Your task to perform on an android device: Search for "dell xps" on bestbuy, select the first entry, add it to the cart, then select checkout. Image 0: 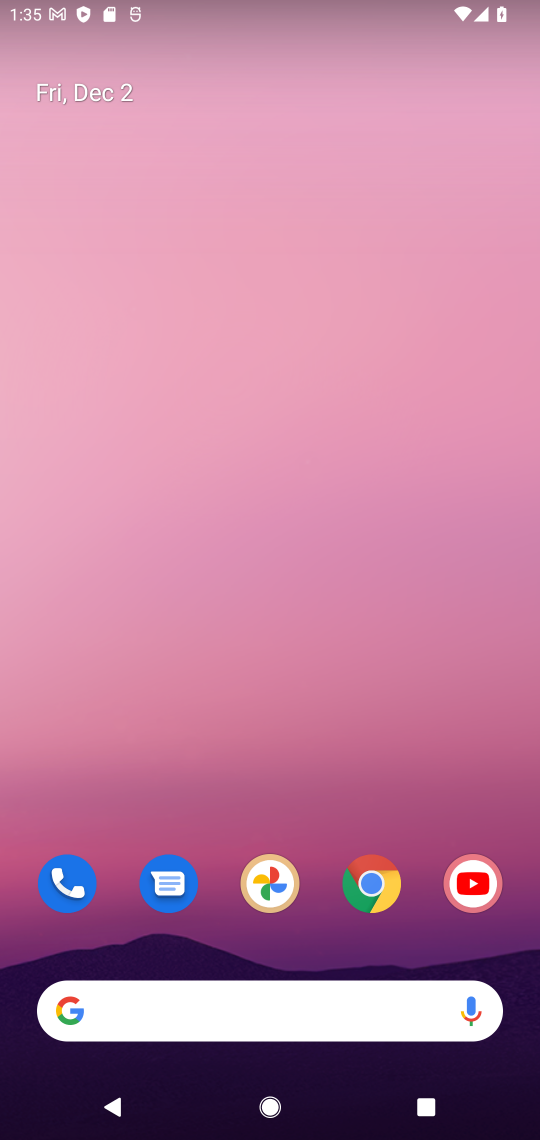
Step 0: click (73, 1008)
Your task to perform on an android device: Search for "dell xps" on bestbuy, select the first entry, add it to the cart, then select checkout. Image 1: 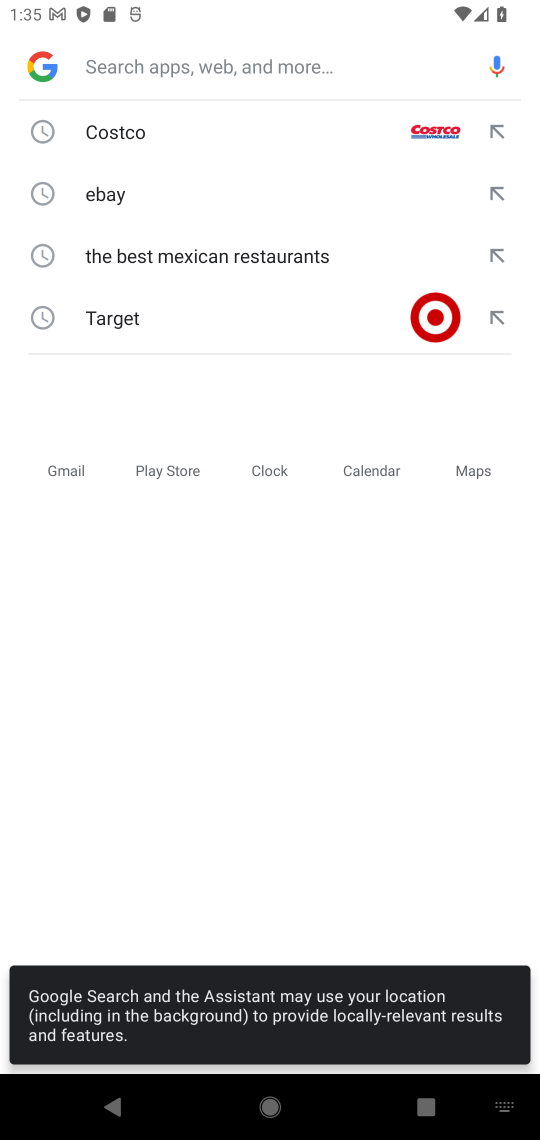
Step 1: click (261, 61)
Your task to perform on an android device: Search for "dell xps" on bestbuy, select the first entry, add it to the cart, then select checkout. Image 2: 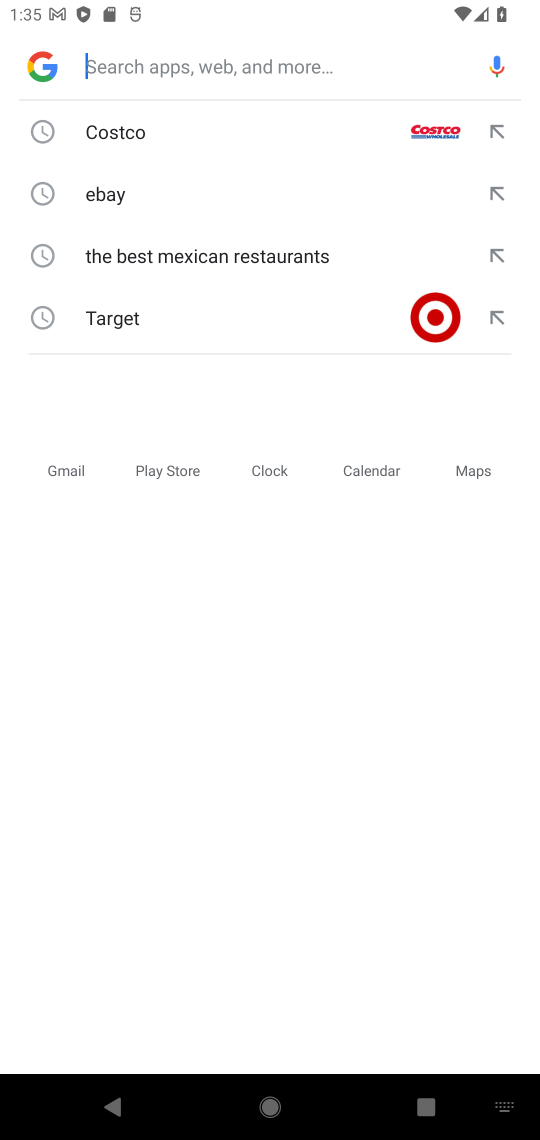
Step 2: type "bestbuy"
Your task to perform on an android device: Search for "dell xps" on bestbuy, select the first entry, add it to the cart, then select checkout. Image 3: 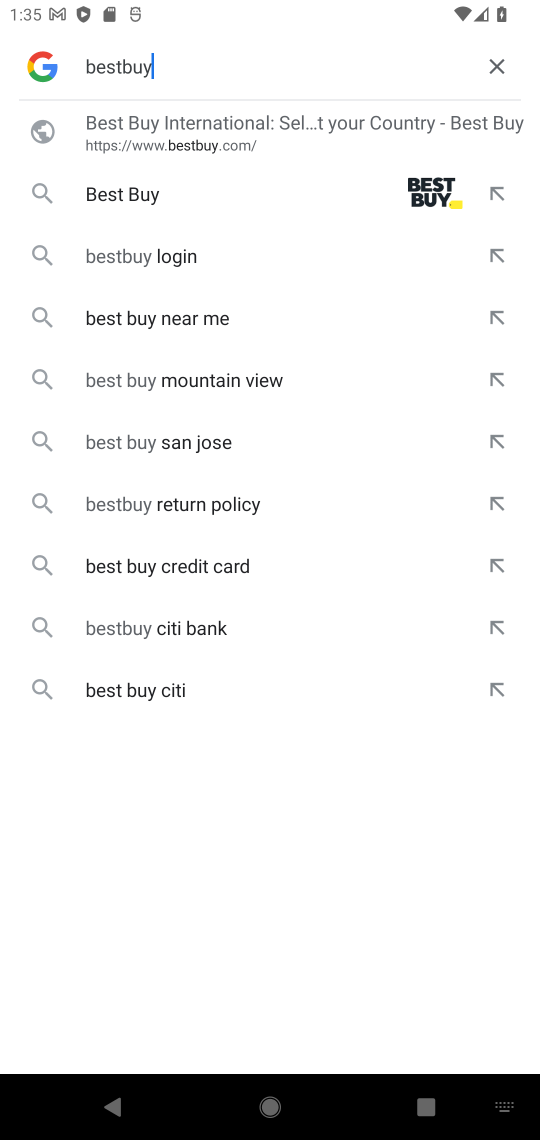
Step 3: click (234, 127)
Your task to perform on an android device: Search for "dell xps" on bestbuy, select the first entry, add it to the cart, then select checkout. Image 4: 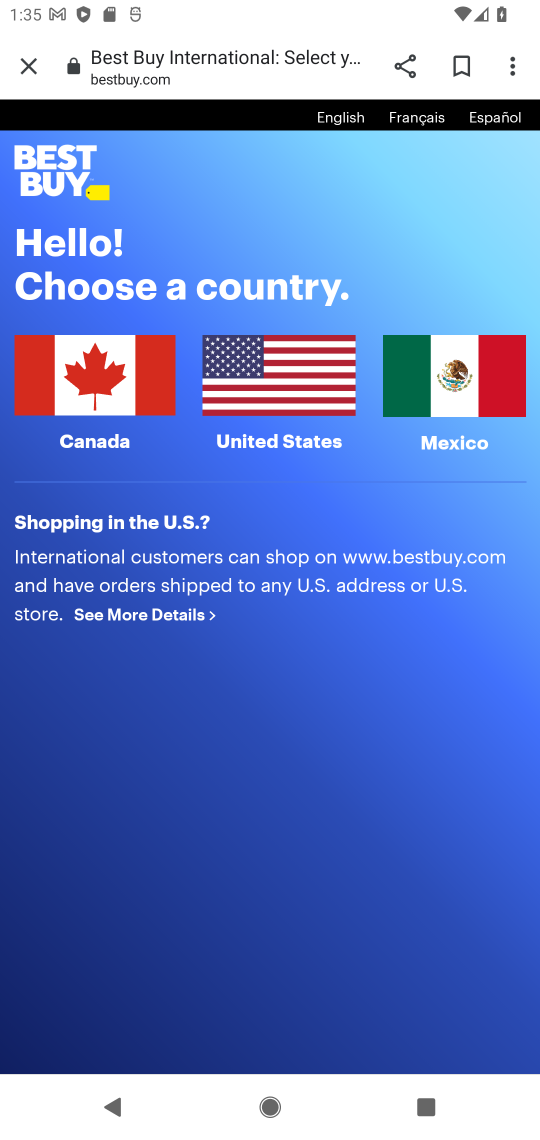
Step 4: click (284, 394)
Your task to perform on an android device: Search for "dell xps" on bestbuy, select the first entry, add it to the cart, then select checkout. Image 5: 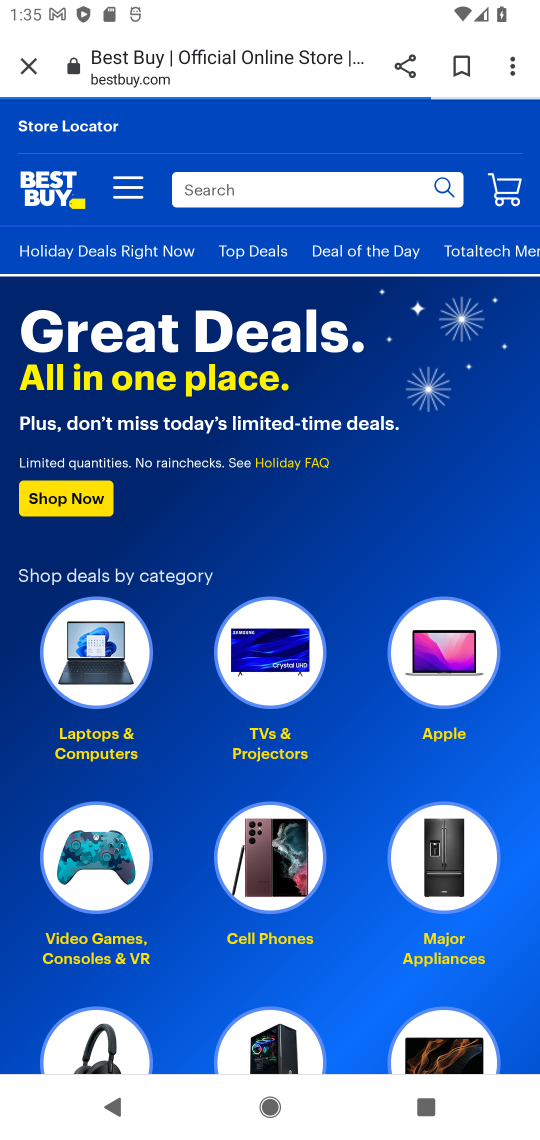
Step 5: click (294, 193)
Your task to perform on an android device: Search for "dell xps" on bestbuy, select the first entry, add it to the cart, then select checkout. Image 6: 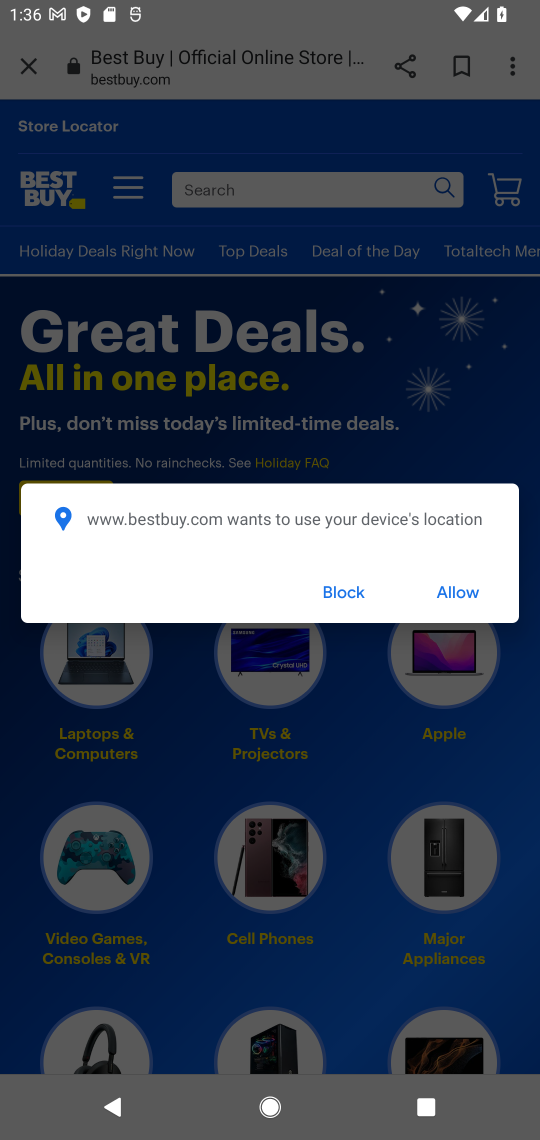
Step 6: click (380, 194)
Your task to perform on an android device: Search for "dell xps" on bestbuy, select the first entry, add it to the cart, then select checkout. Image 7: 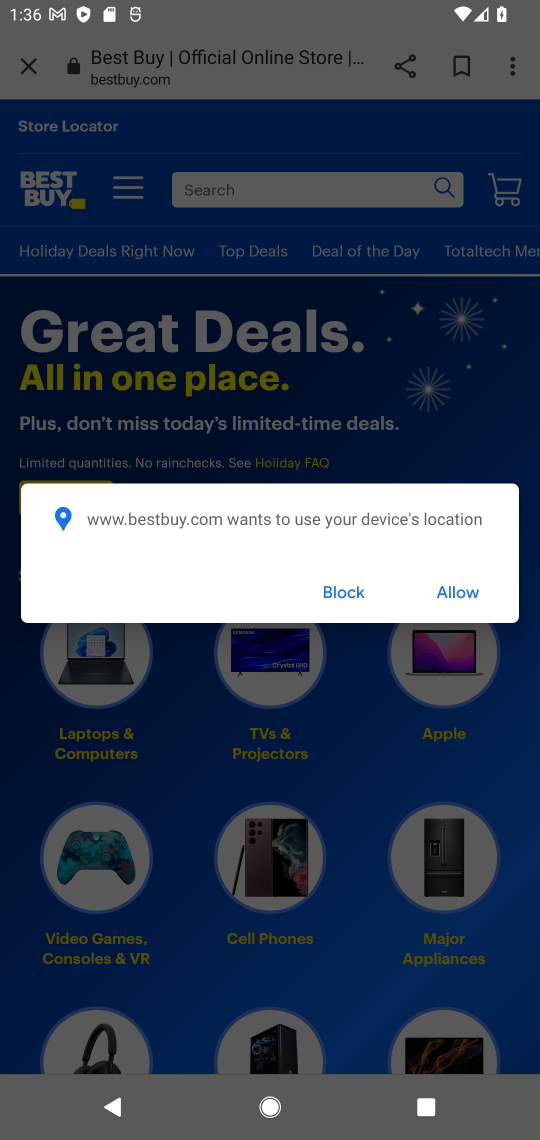
Step 7: click (344, 589)
Your task to perform on an android device: Search for "dell xps" on bestbuy, select the first entry, add it to the cart, then select checkout. Image 8: 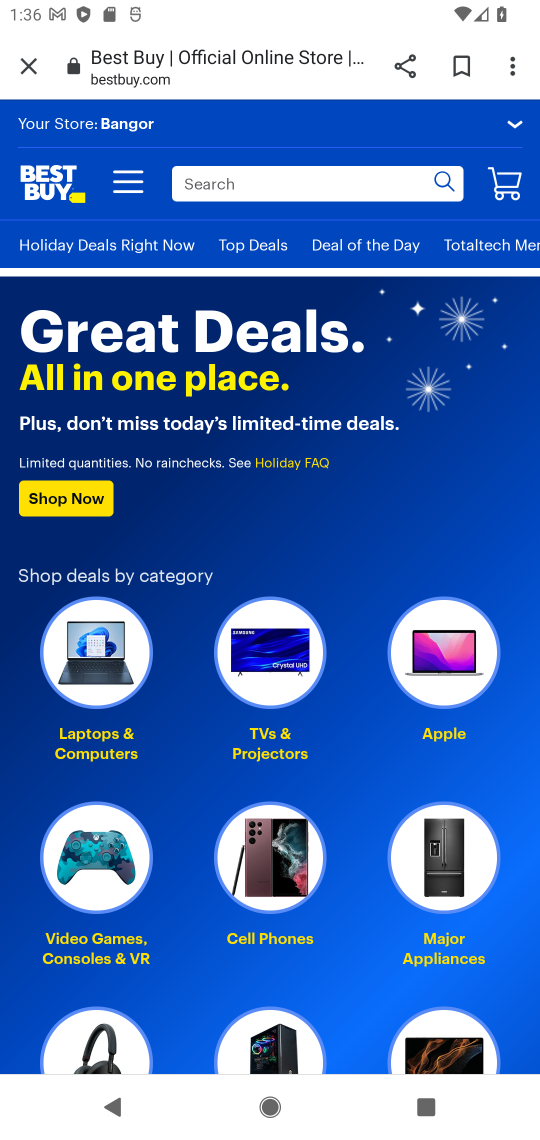
Step 8: click (286, 194)
Your task to perform on an android device: Search for "dell xps" on bestbuy, select the first entry, add it to the cart, then select checkout. Image 9: 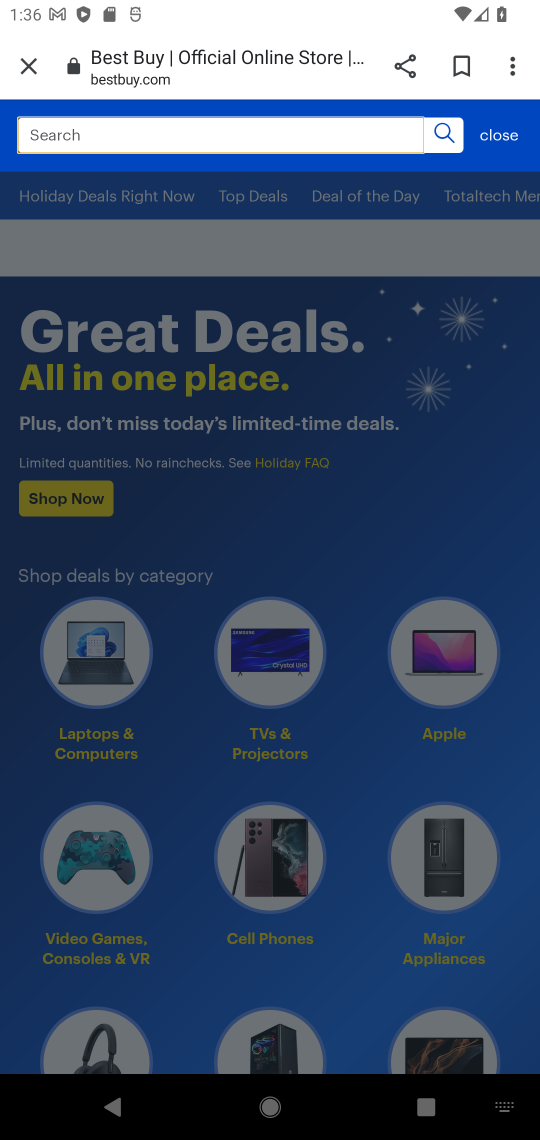
Step 9: type "dell xps"
Your task to perform on an android device: Search for "dell xps" on bestbuy, select the first entry, add it to the cart, then select checkout. Image 10: 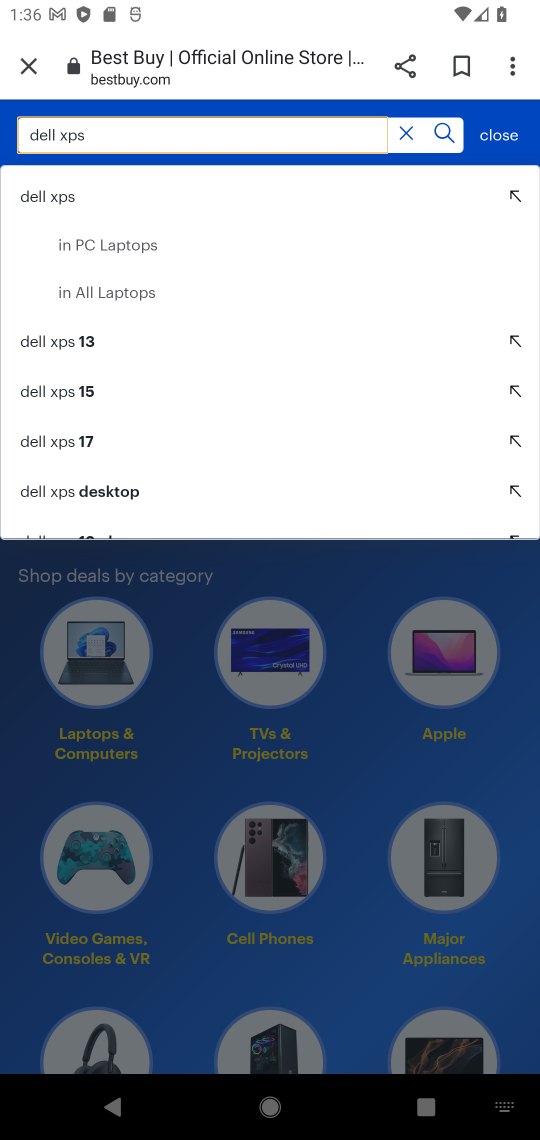
Step 10: click (71, 196)
Your task to perform on an android device: Search for "dell xps" on bestbuy, select the first entry, add it to the cart, then select checkout. Image 11: 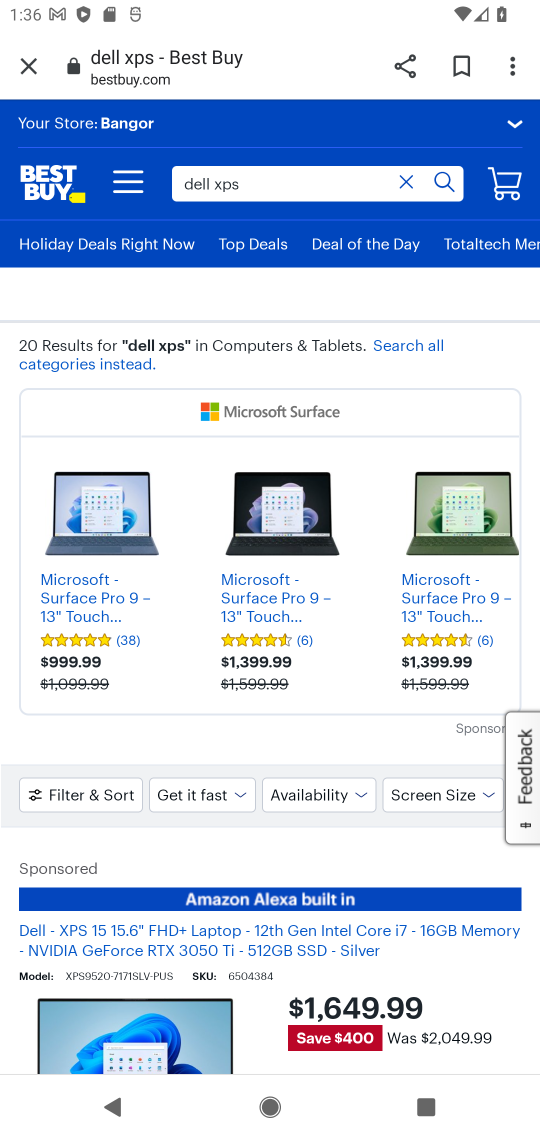
Step 11: click (99, 1032)
Your task to perform on an android device: Search for "dell xps" on bestbuy, select the first entry, add it to the cart, then select checkout. Image 12: 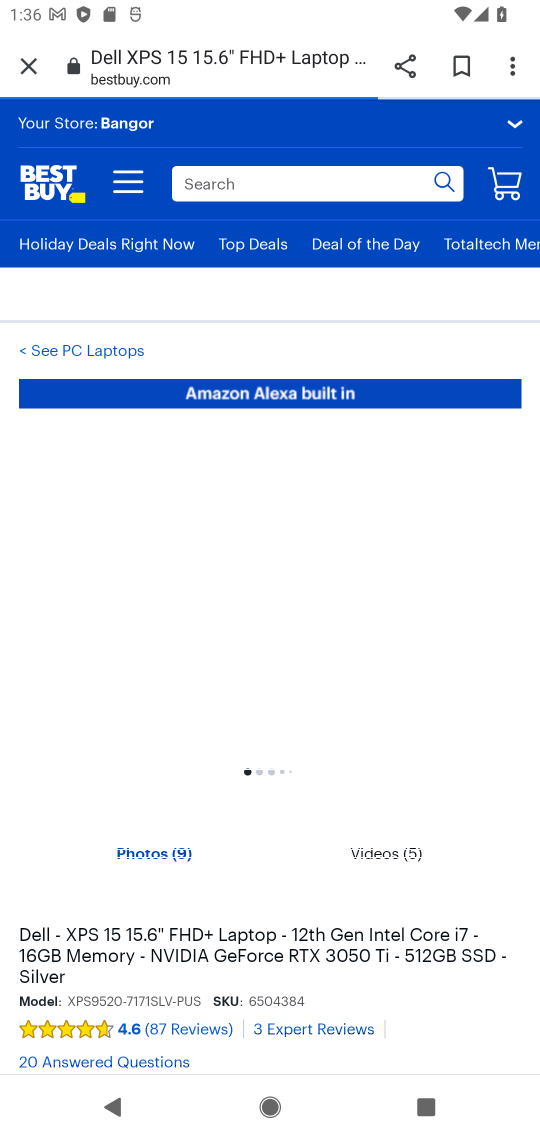
Step 12: drag from (447, 994) to (469, 401)
Your task to perform on an android device: Search for "dell xps" on bestbuy, select the first entry, add it to the cart, then select checkout. Image 13: 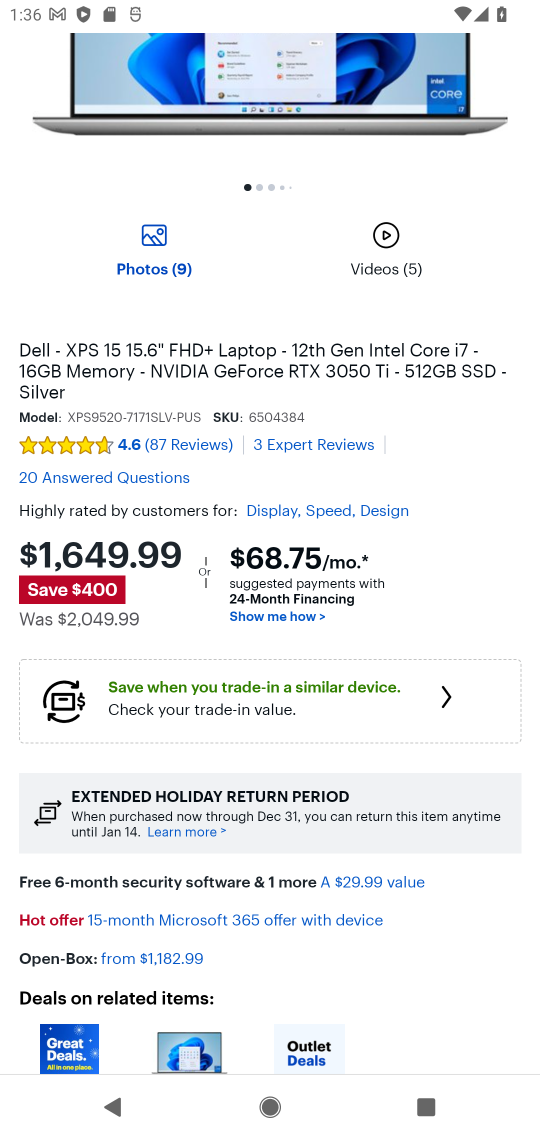
Step 13: drag from (382, 958) to (468, 204)
Your task to perform on an android device: Search for "dell xps" on bestbuy, select the first entry, add it to the cart, then select checkout. Image 14: 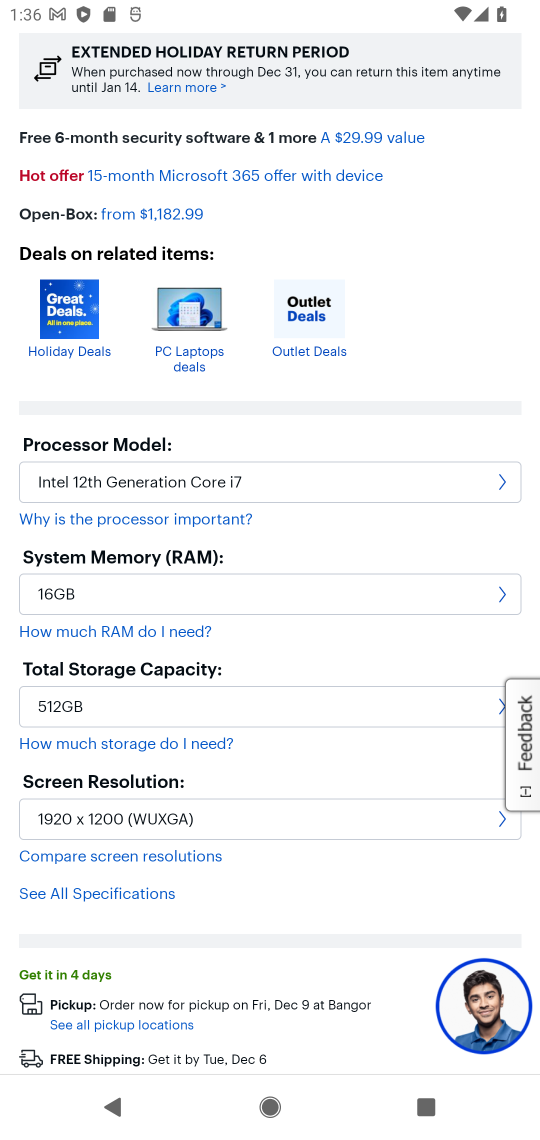
Step 14: drag from (283, 951) to (423, 62)
Your task to perform on an android device: Search for "dell xps" on bestbuy, select the first entry, add it to the cart, then select checkout. Image 15: 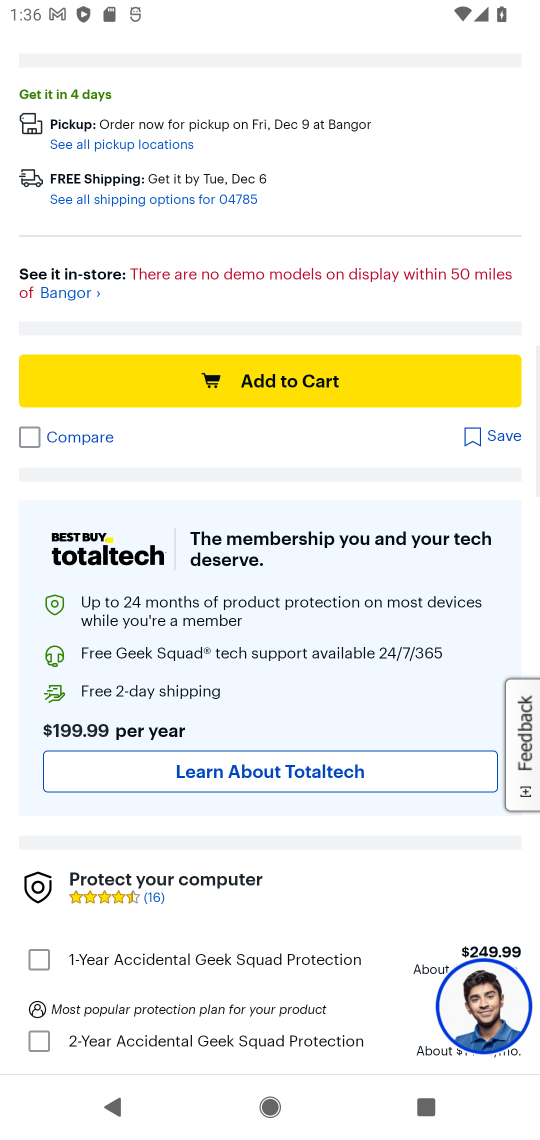
Step 15: click (300, 379)
Your task to perform on an android device: Search for "dell xps" on bestbuy, select the first entry, add it to the cart, then select checkout. Image 16: 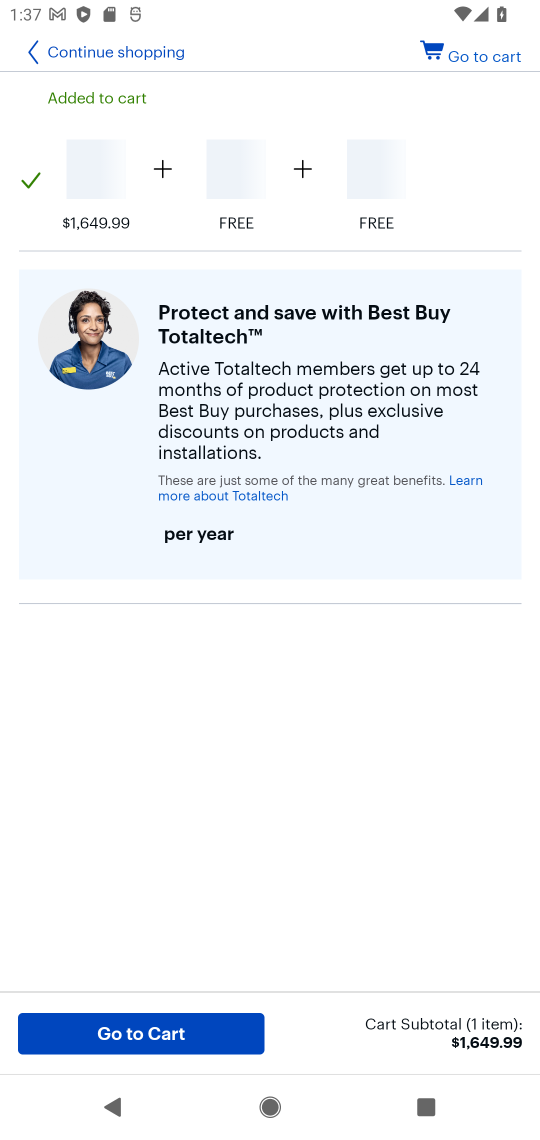
Step 16: click (126, 1033)
Your task to perform on an android device: Search for "dell xps" on bestbuy, select the first entry, add it to the cart, then select checkout. Image 17: 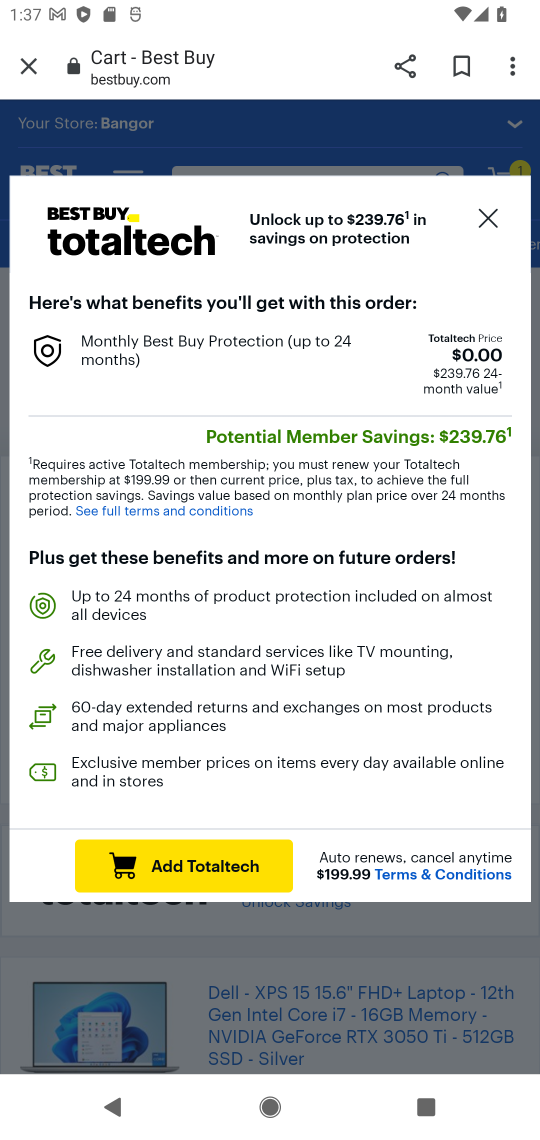
Step 17: click (482, 214)
Your task to perform on an android device: Search for "dell xps" on bestbuy, select the first entry, add it to the cart, then select checkout. Image 18: 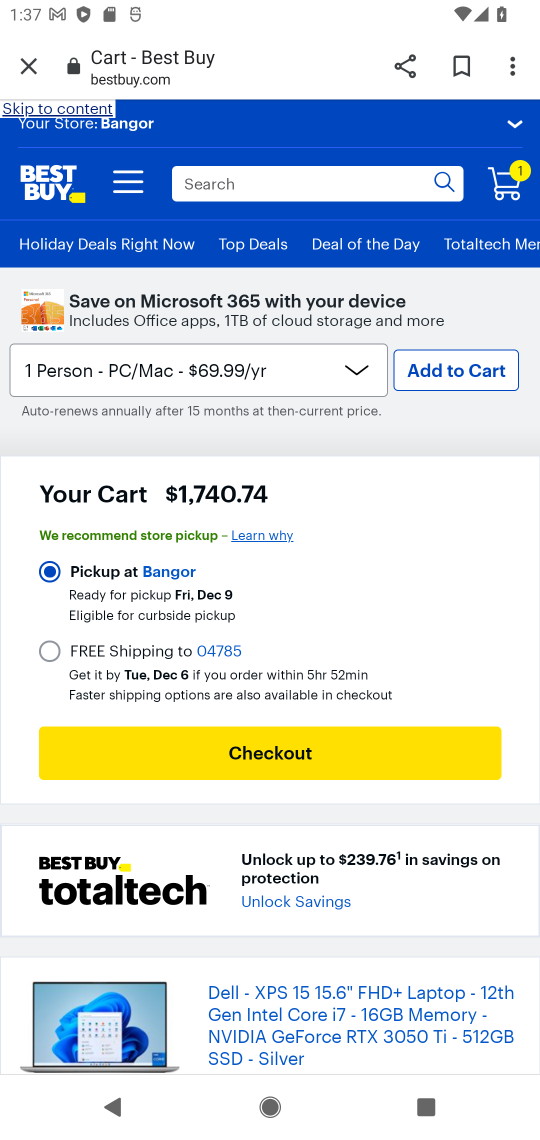
Step 18: click (256, 747)
Your task to perform on an android device: Search for "dell xps" on bestbuy, select the first entry, add it to the cart, then select checkout. Image 19: 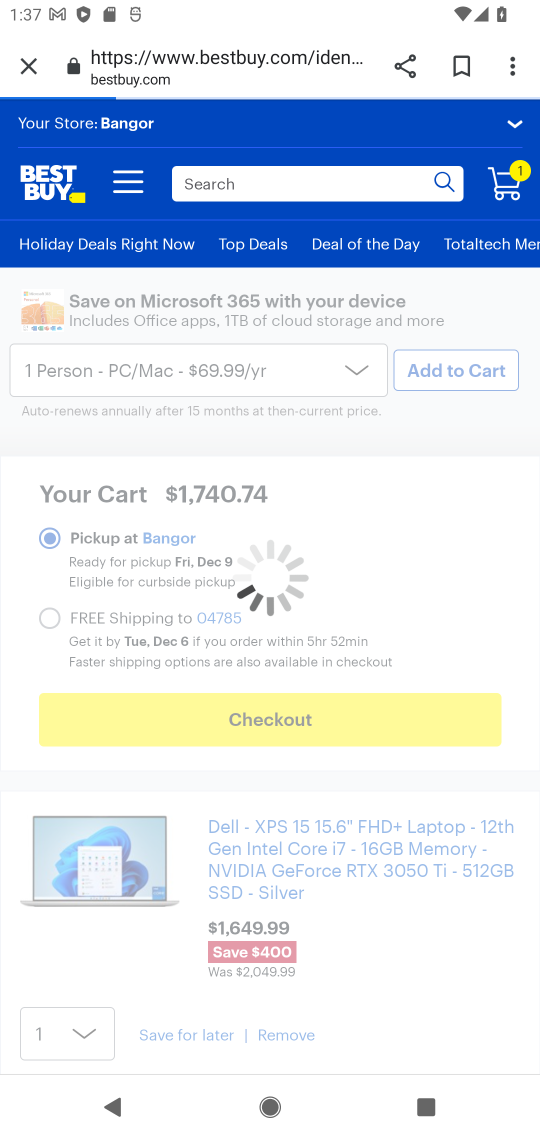
Step 19: task complete